Your task to perform on an android device: turn on showing notifications on the lock screen Image 0: 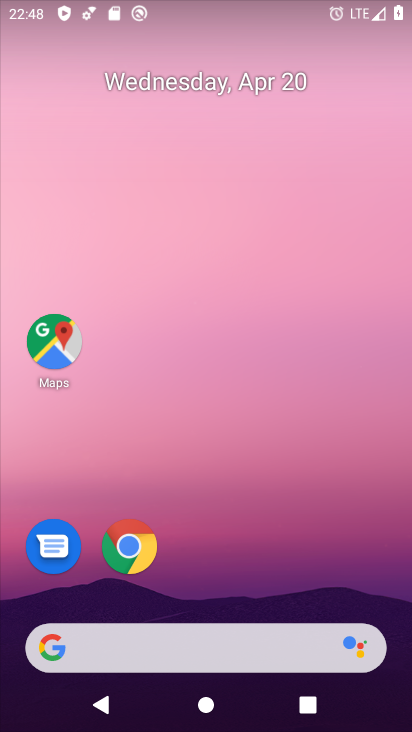
Step 0: drag from (232, 506) to (79, 81)
Your task to perform on an android device: turn on showing notifications on the lock screen Image 1: 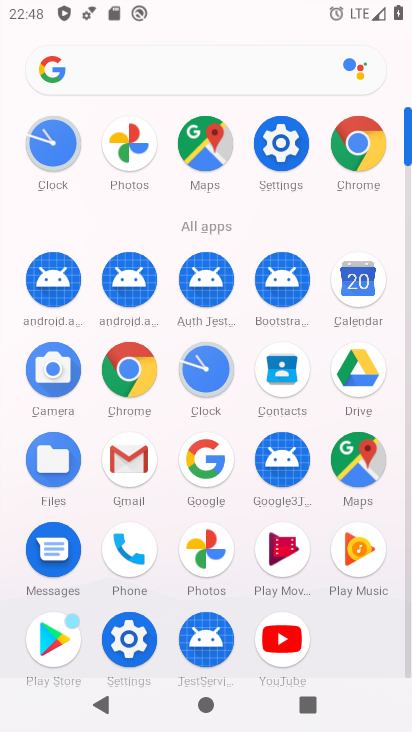
Step 1: click (285, 152)
Your task to perform on an android device: turn on showing notifications on the lock screen Image 2: 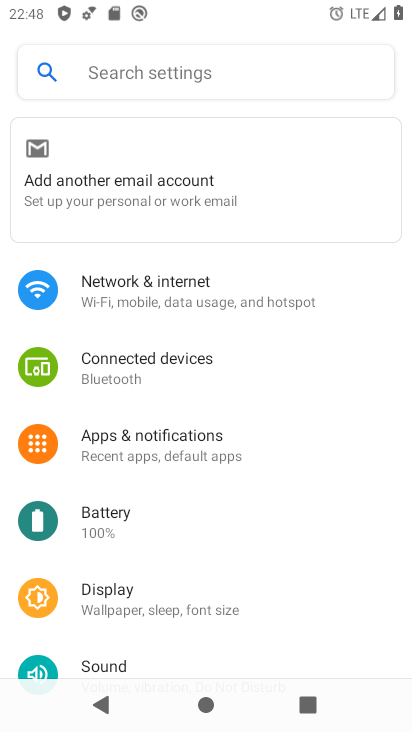
Step 2: click (120, 458)
Your task to perform on an android device: turn on showing notifications on the lock screen Image 3: 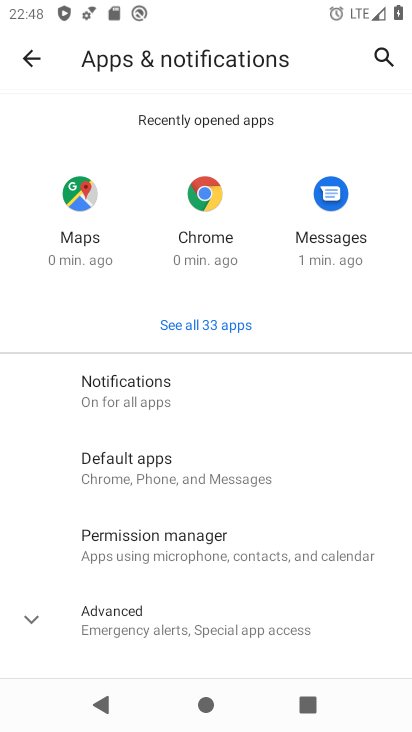
Step 3: click (112, 400)
Your task to perform on an android device: turn on showing notifications on the lock screen Image 4: 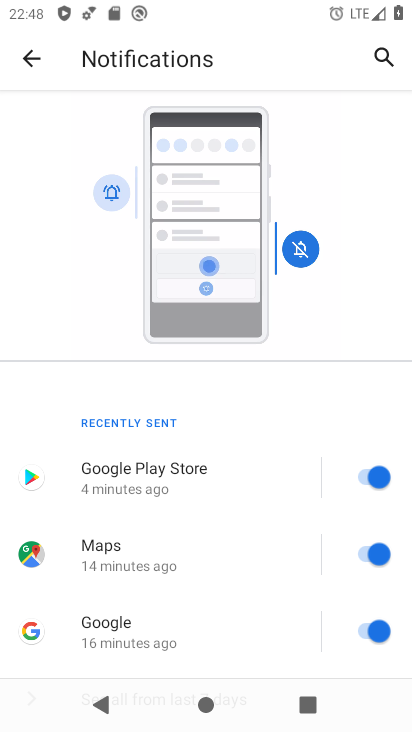
Step 4: drag from (163, 629) to (157, 247)
Your task to perform on an android device: turn on showing notifications on the lock screen Image 5: 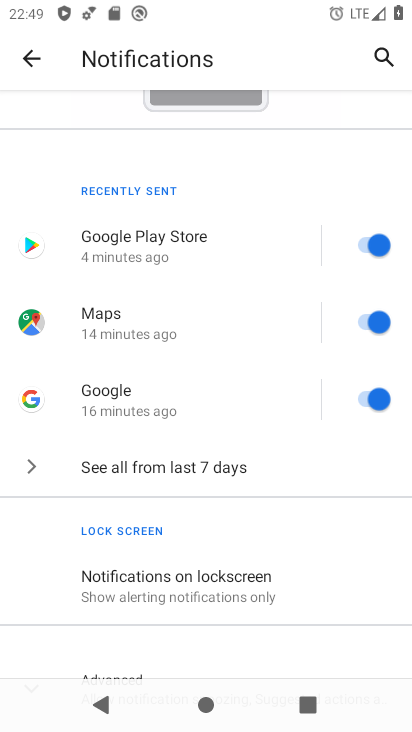
Step 5: drag from (181, 639) to (191, 431)
Your task to perform on an android device: turn on showing notifications on the lock screen Image 6: 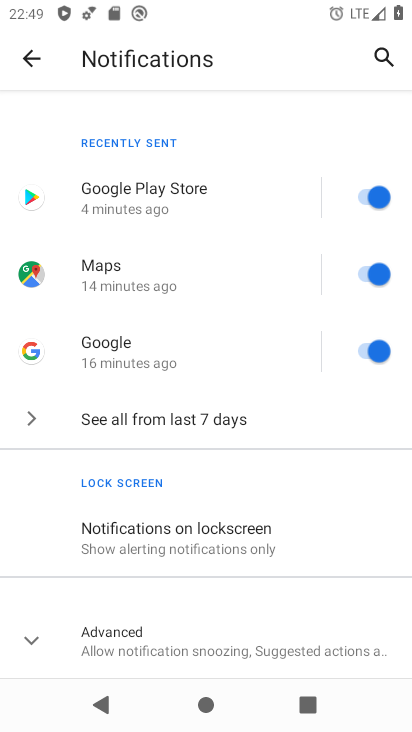
Step 6: click (117, 547)
Your task to perform on an android device: turn on showing notifications on the lock screen Image 7: 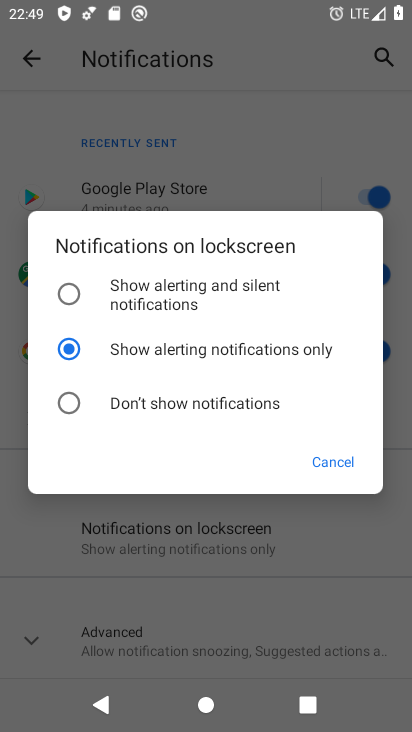
Step 7: click (62, 293)
Your task to perform on an android device: turn on showing notifications on the lock screen Image 8: 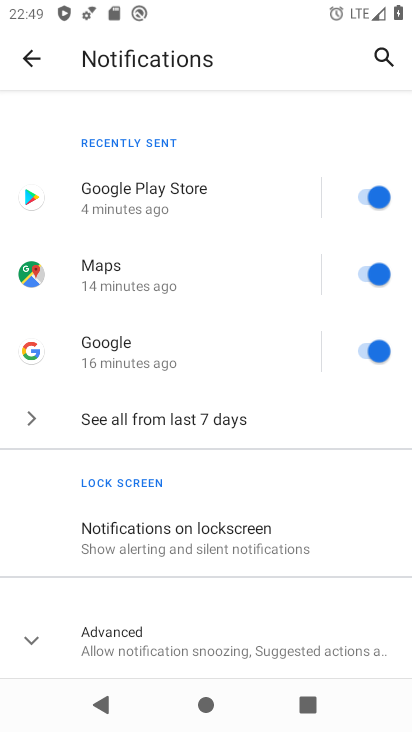
Step 8: task complete